Your task to perform on an android device: Open calendar and show me the fourth week of next month Image 0: 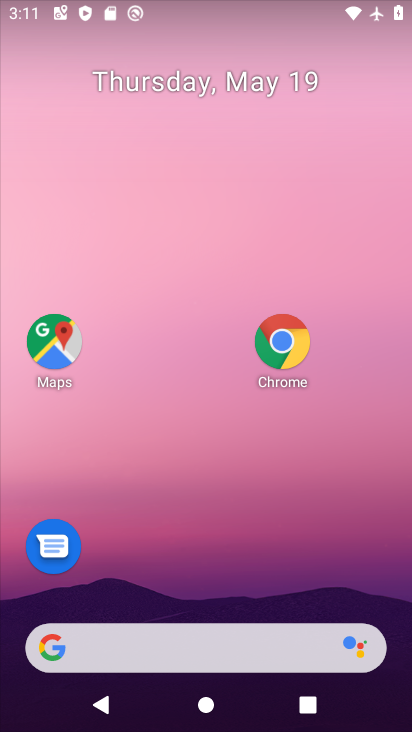
Step 0: drag from (162, 648) to (240, 224)
Your task to perform on an android device: Open calendar and show me the fourth week of next month Image 1: 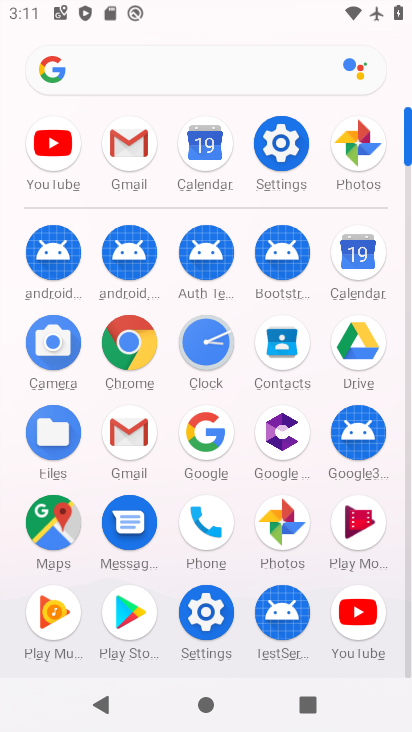
Step 1: click (349, 266)
Your task to perform on an android device: Open calendar and show me the fourth week of next month Image 2: 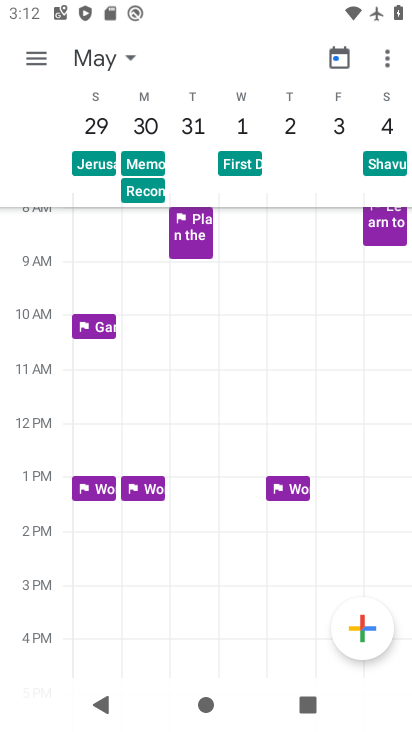
Step 2: click (99, 51)
Your task to perform on an android device: Open calendar and show me the fourth week of next month Image 3: 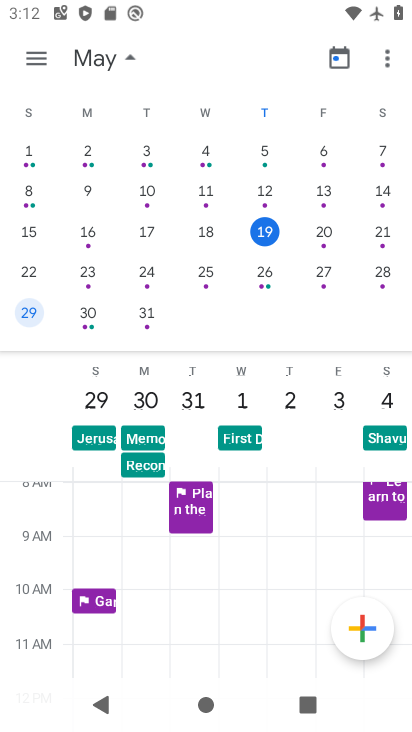
Step 3: drag from (374, 252) to (24, 251)
Your task to perform on an android device: Open calendar and show me the fourth week of next month Image 4: 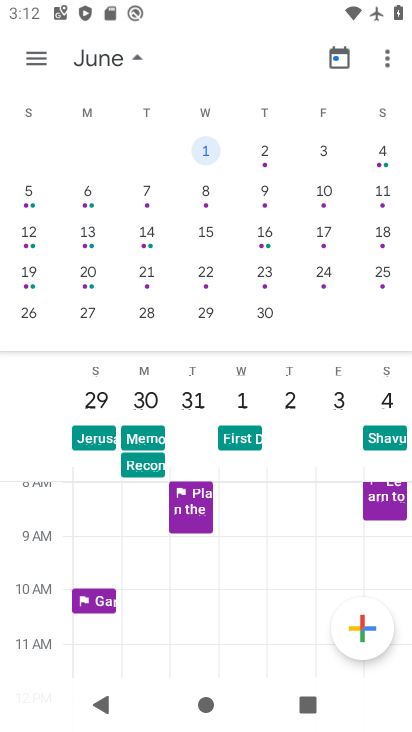
Step 4: click (31, 266)
Your task to perform on an android device: Open calendar and show me the fourth week of next month Image 5: 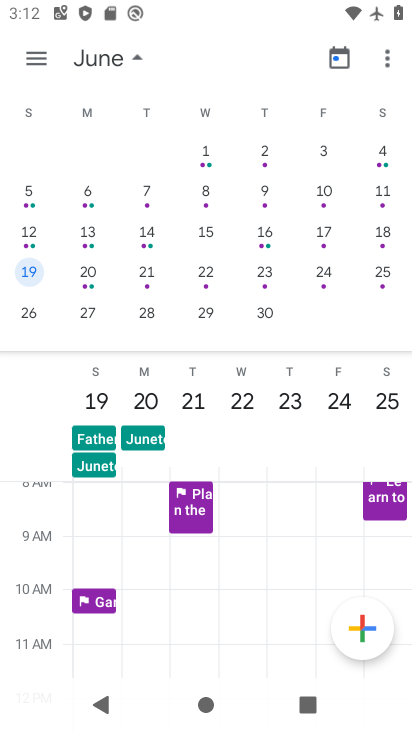
Step 5: click (35, 61)
Your task to perform on an android device: Open calendar and show me the fourth week of next month Image 6: 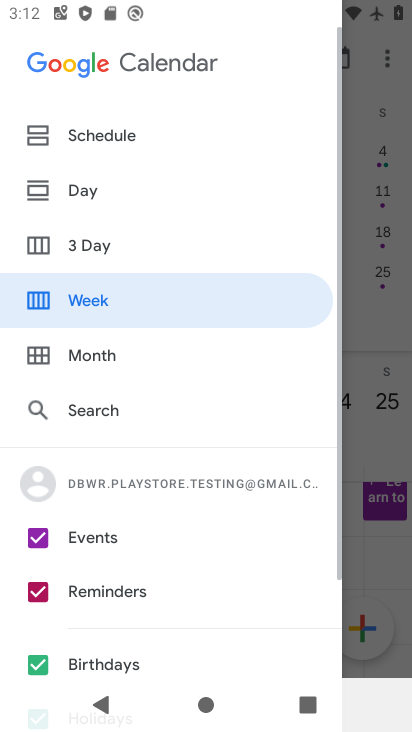
Step 6: click (89, 293)
Your task to perform on an android device: Open calendar and show me the fourth week of next month Image 7: 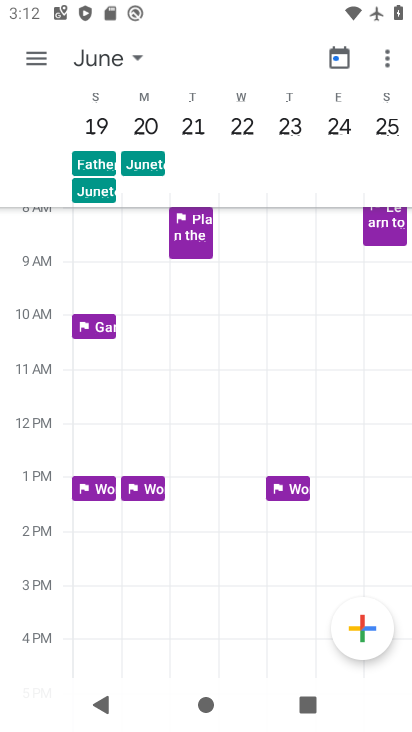
Step 7: task complete